Your task to perform on an android device: toggle javascript in the chrome app Image 0: 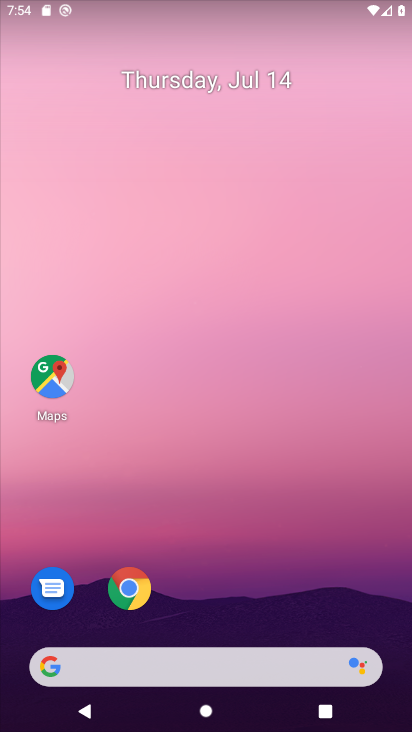
Step 0: drag from (301, 615) to (371, 100)
Your task to perform on an android device: toggle javascript in the chrome app Image 1: 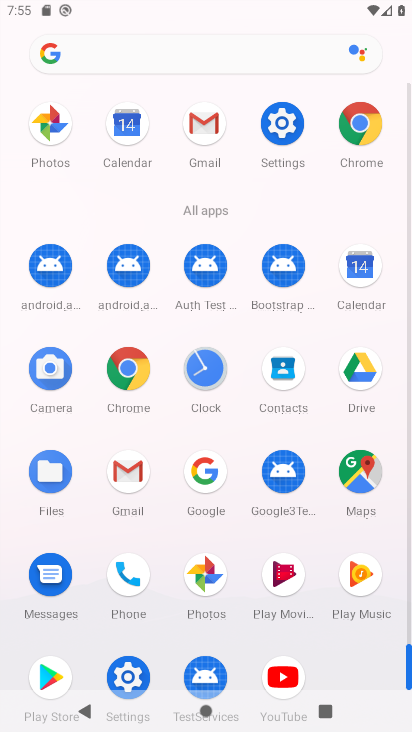
Step 1: click (130, 377)
Your task to perform on an android device: toggle javascript in the chrome app Image 2: 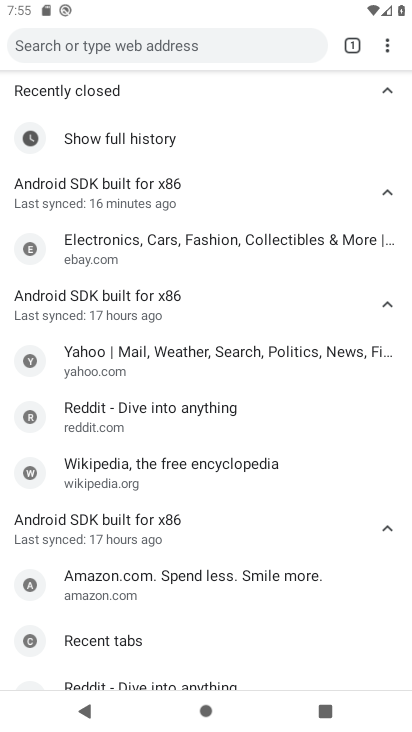
Step 2: click (383, 50)
Your task to perform on an android device: toggle javascript in the chrome app Image 3: 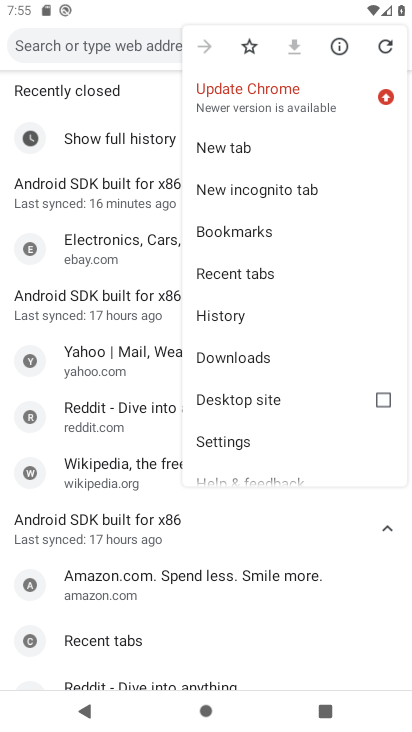
Step 3: click (248, 444)
Your task to perform on an android device: toggle javascript in the chrome app Image 4: 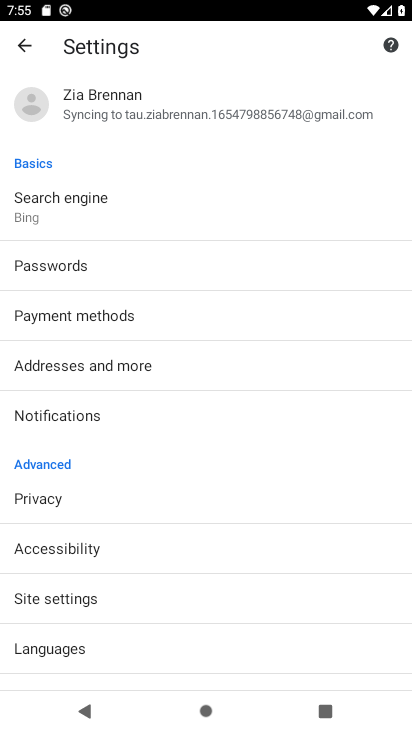
Step 4: drag from (267, 554) to (273, 451)
Your task to perform on an android device: toggle javascript in the chrome app Image 5: 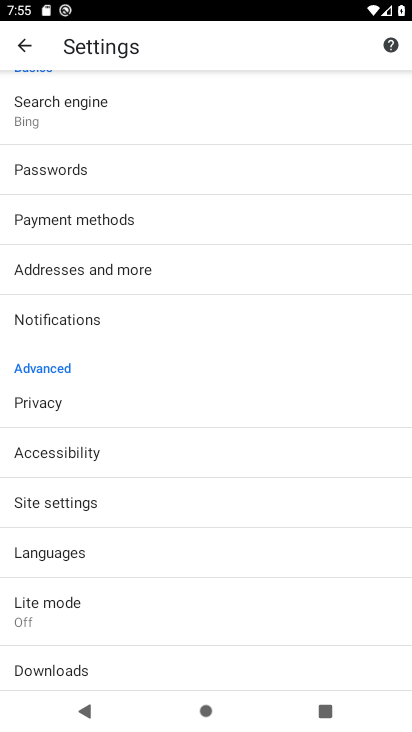
Step 5: drag from (309, 562) to (332, 419)
Your task to perform on an android device: toggle javascript in the chrome app Image 6: 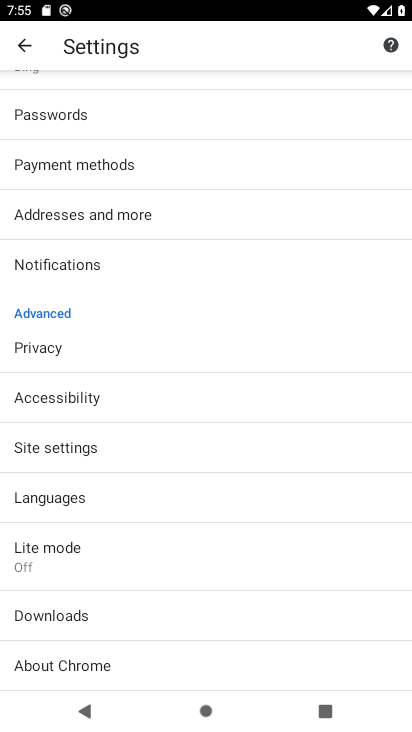
Step 6: click (265, 444)
Your task to perform on an android device: toggle javascript in the chrome app Image 7: 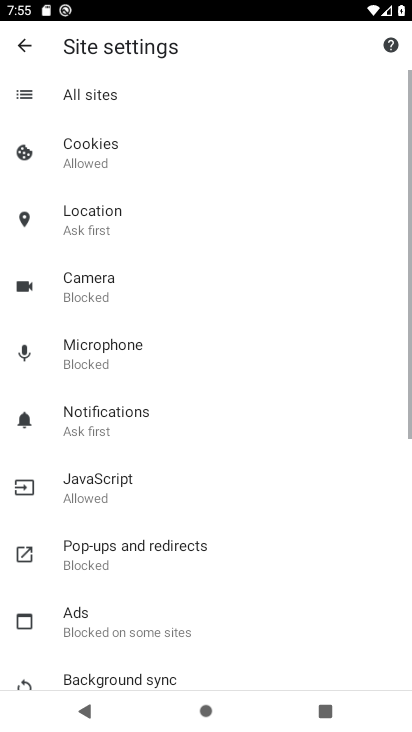
Step 7: drag from (321, 536) to (364, 188)
Your task to perform on an android device: toggle javascript in the chrome app Image 8: 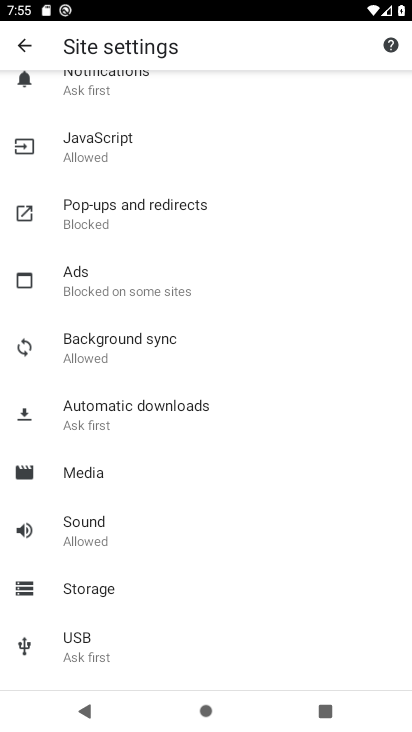
Step 8: drag from (328, 485) to (348, 230)
Your task to perform on an android device: toggle javascript in the chrome app Image 9: 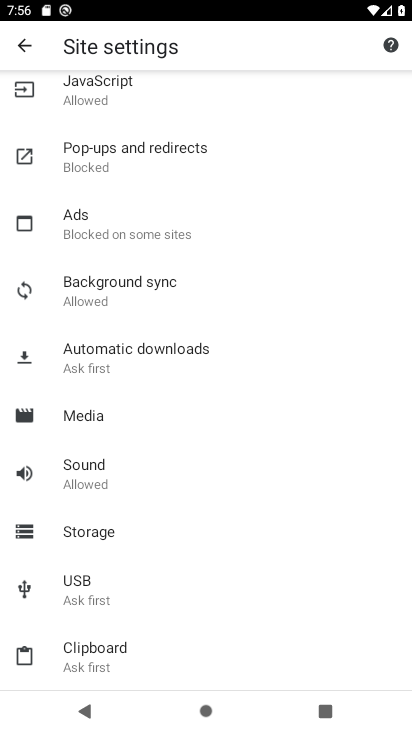
Step 9: drag from (325, 195) to (326, 303)
Your task to perform on an android device: toggle javascript in the chrome app Image 10: 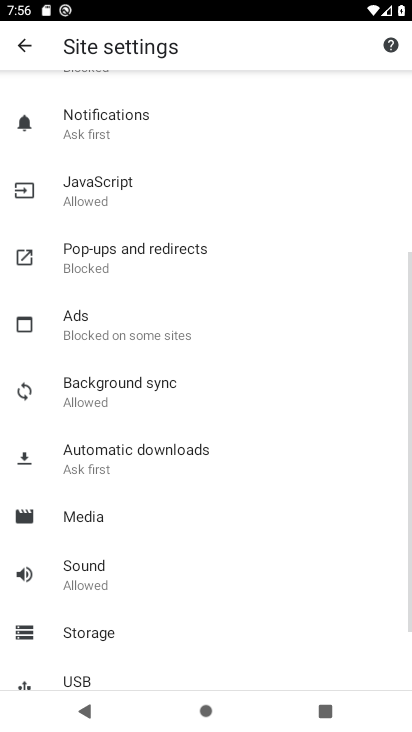
Step 10: drag from (326, 207) to (333, 298)
Your task to perform on an android device: toggle javascript in the chrome app Image 11: 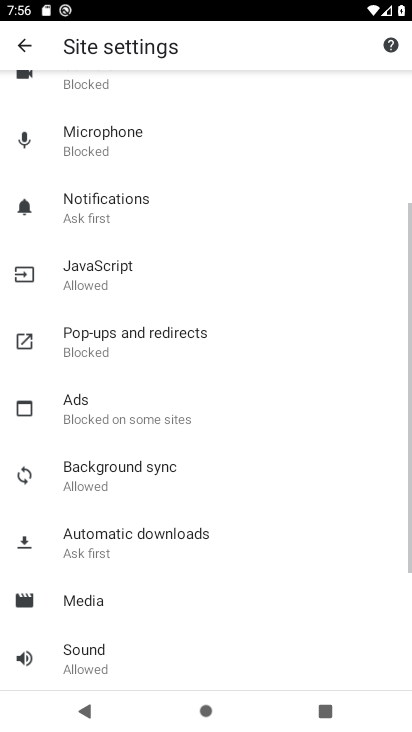
Step 11: drag from (336, 172) to (338, 272)
Your task to perform on an android device: toggle javascript in the chrome app Image 12: 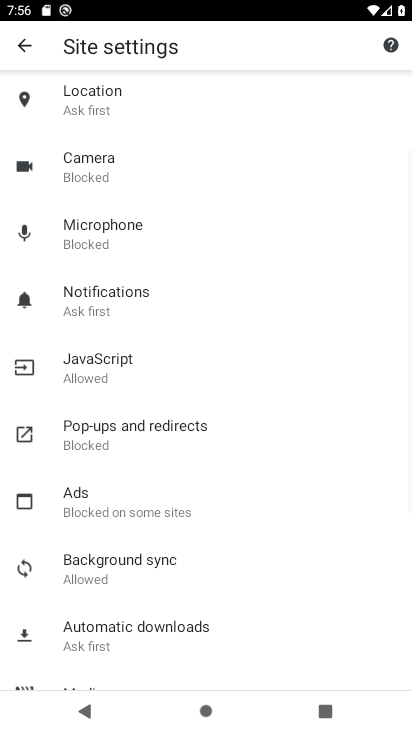
Step 12: drag from (333, 150) to (332, 347)
Your task to perform on an android device: toggle javascript in the chrome app Image 13: 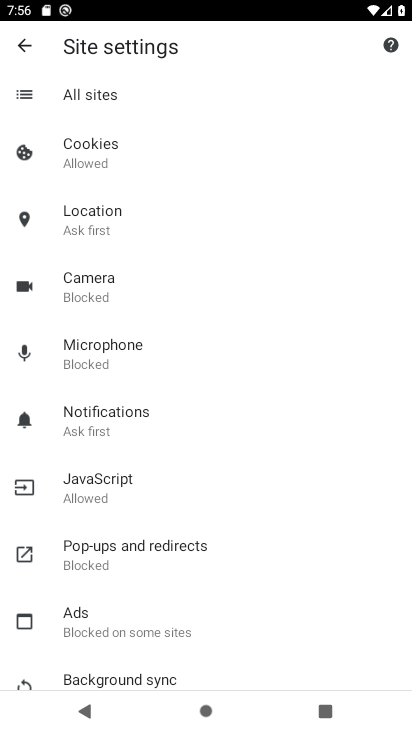
Step 13: click (149, 485)
Your task to perform on an android device: toggle javascript in the chrome app Image 14: 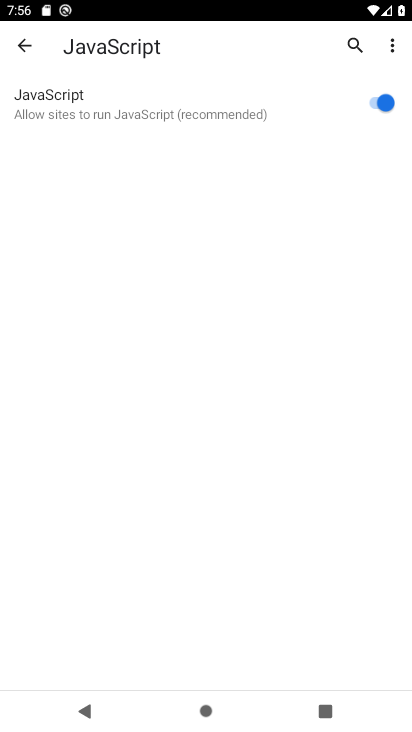
Step 14: click (385, 109)
Your task to perform on an android device: toggle javascript in the chrome app Image 15: 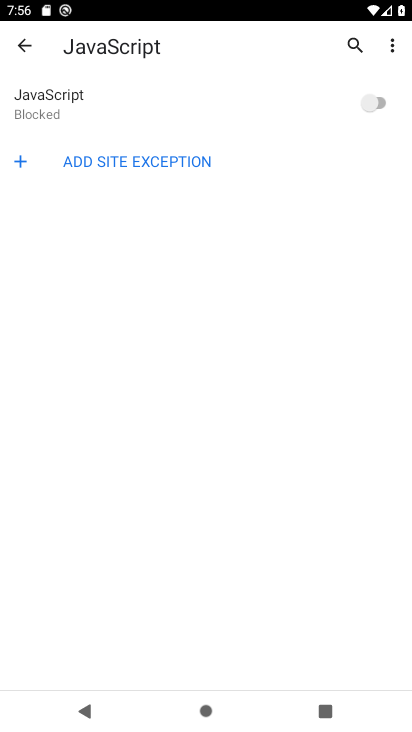
Step 15: task complete